Your task to perform on an android device: Open Google Chrome Image 0: 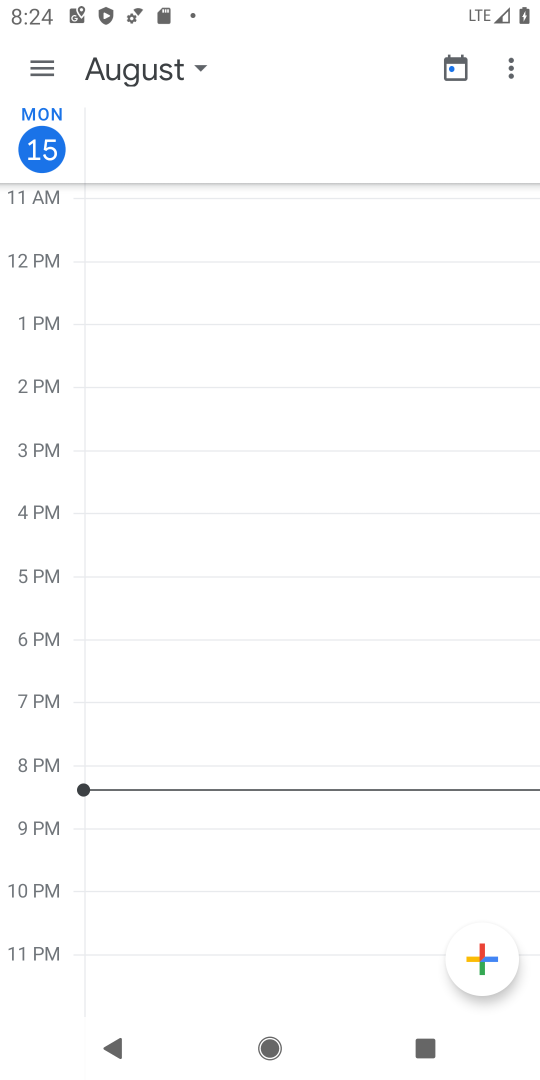
Step 0: press home button
Your task to perform on an android device: Open Google Chrome Image 1: 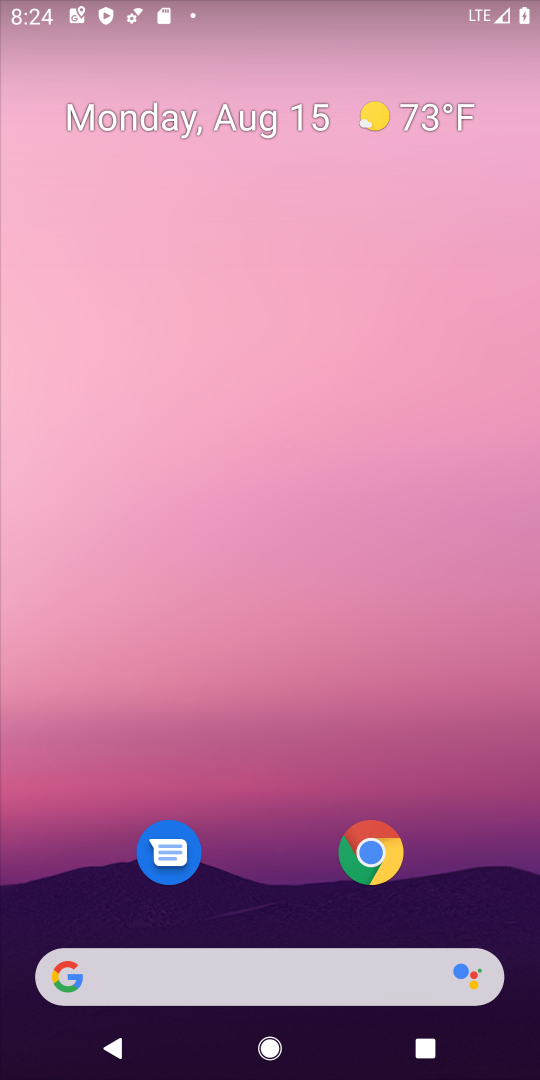
Step 1: click (369, 853)
Your task to perform on an android device: Open Google Chrome Image 2: 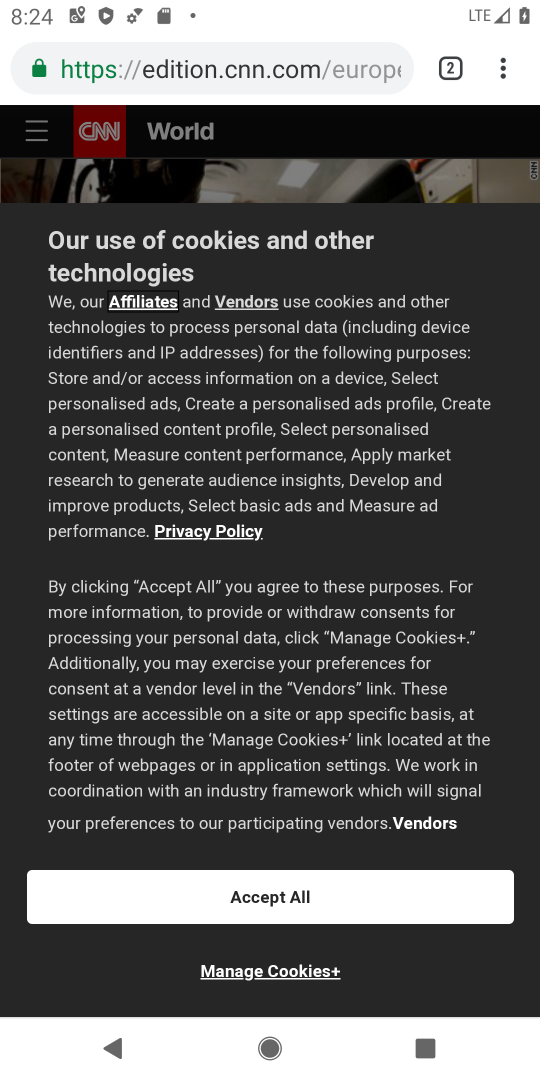
Step 2: task complete